Your task to perform on an android device: Open battery settings Image 0: 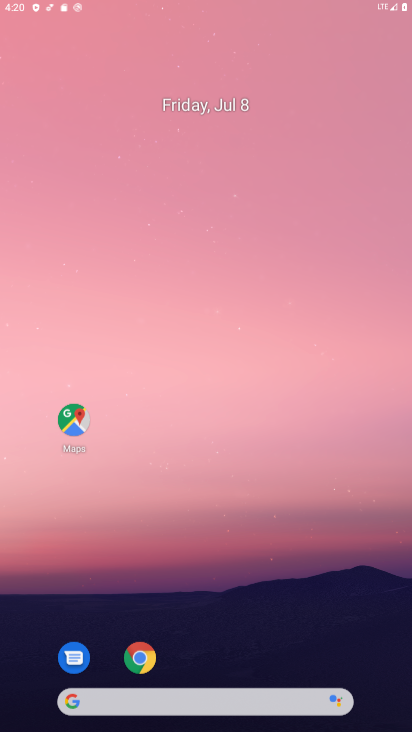
Step 0: press home button
Your task to perform on an android device: Open battery settings Image 1: 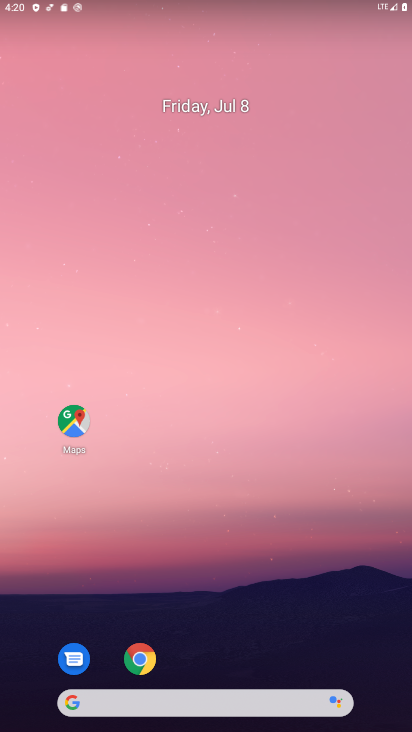
Step 1: drag from (220, 666) to (244, 100)
Your task to perform on an android device: Open battery settings Image 2: 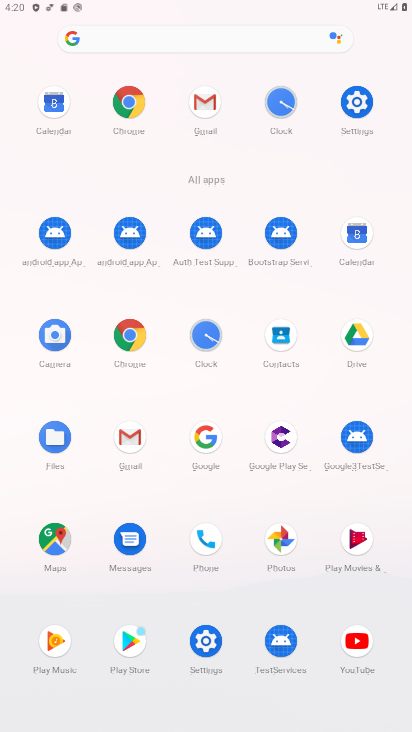
Step 2: click (211, 643)
Your task to perform on an android device: Open battery settings Image 3: 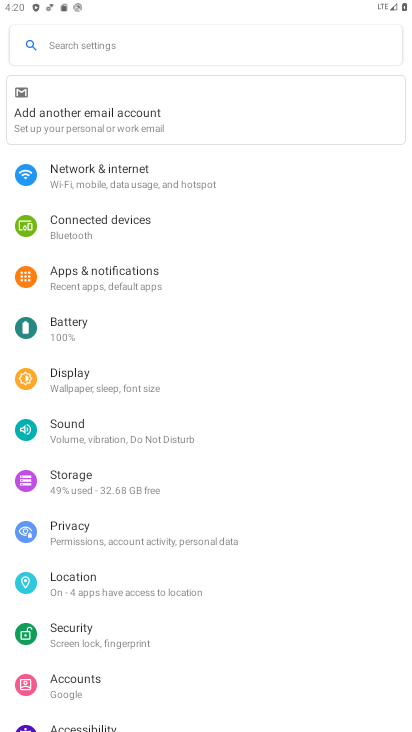
Step 3: click (26, 328)
Your task to perform on an android device: Open battery settings Image 4: 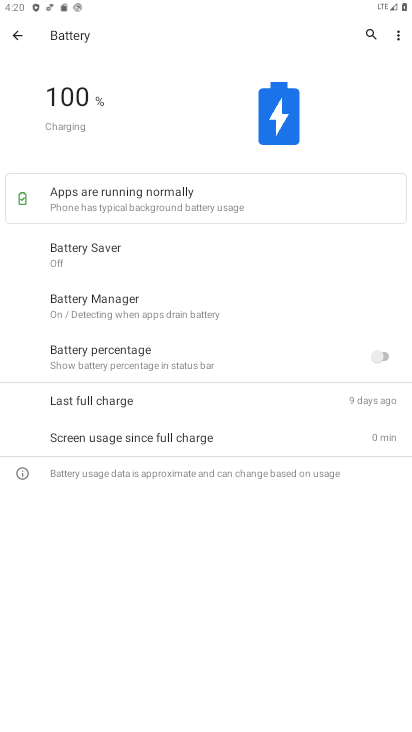
Step 4: task complete